Your task to perform on an android device: turn on priority inbox in the gmail app Image 0: 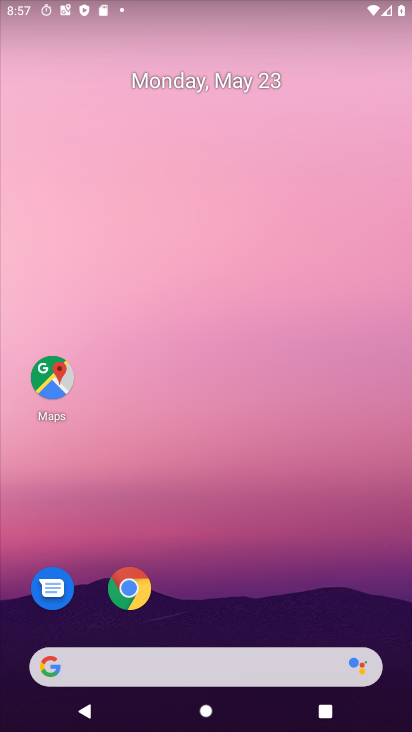
Step 0: drag from (396, 688) to (361, 204)
Your task to perform on an android device: turn on priority inbox in the gmail app Image 1: 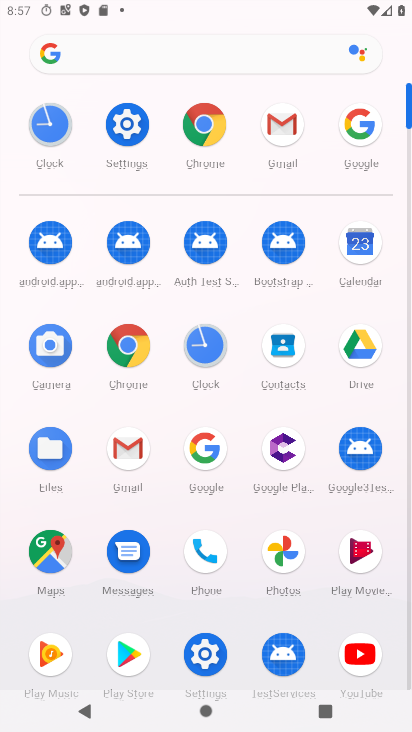
Step 1: click (286, 129)
Your task to perform on an android device: turn on priority inbox in the gmail app Image 2: 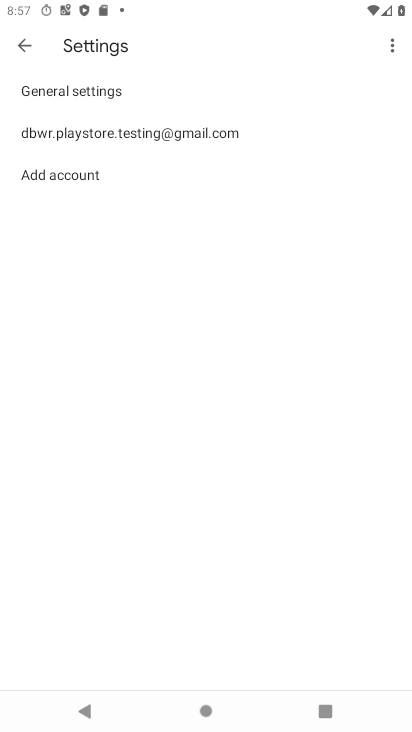
Step 2: click (61, 128)
Your task to perform on an android device: turn on priority inbox in the gmail app Image 3: 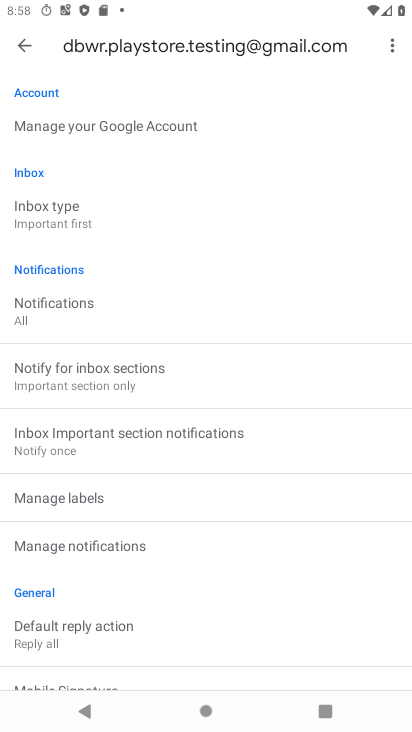
Step 3: click (52, 211)
Your task to perform on an android device: turn on priority inbox in the gmail app Image 4: 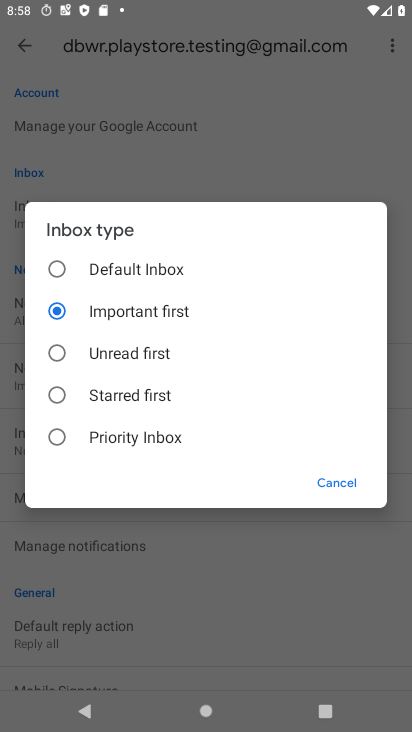
Step 4: click (54, 431)
Your task to perform on an android device: turn on priority inbox in the gmail app Image 5: 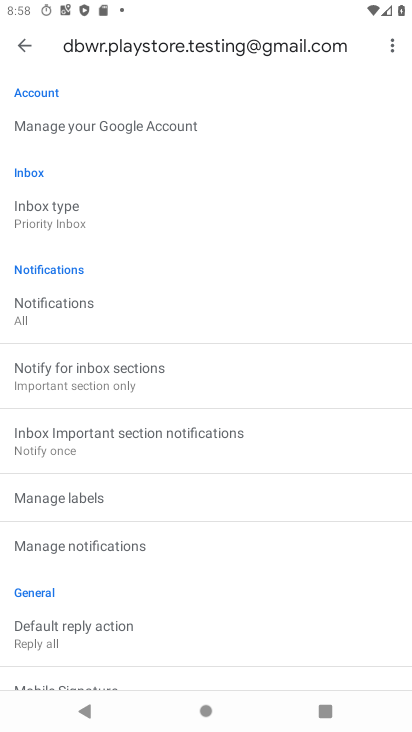
Step 5: task complete